Your task to perform on an android device: turn on the 12-hour format for clock Image 0: 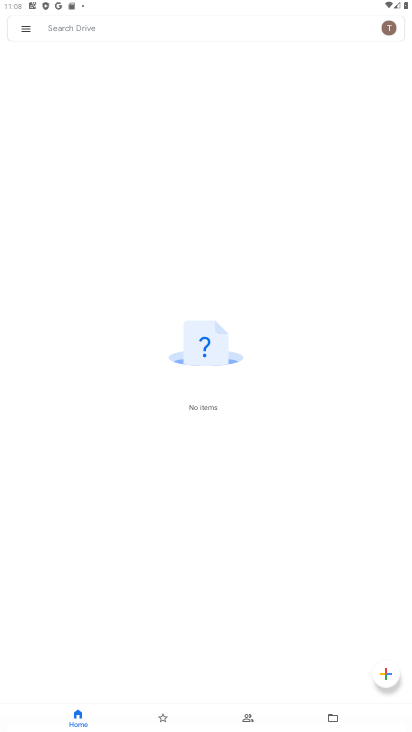
Step 0: press home button
Your task to perform on an android device: turn on the 12-hour format for clock Image 1: 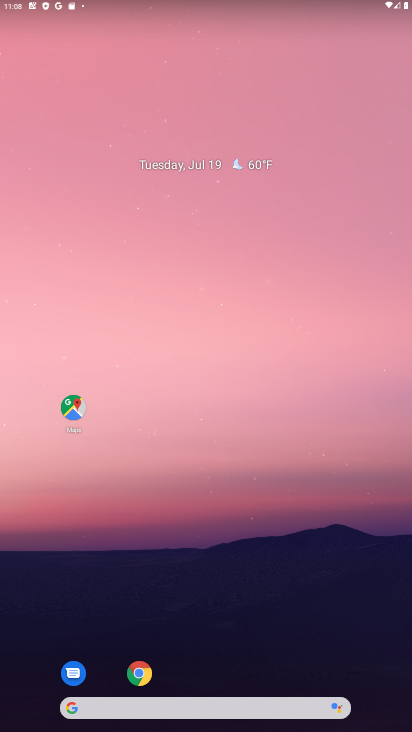
Step 1: drag from (383, 680) to (332, 167)
Your task to perform on an android device: turn on the 12-hour format for clock Image 2: 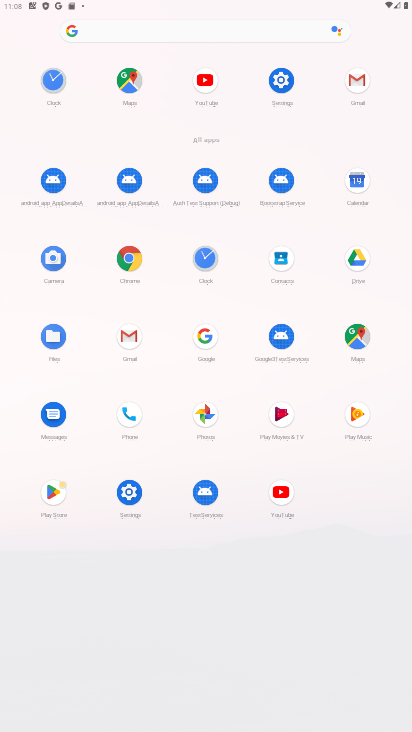
Step 2: click (206, 258)
Your task to perform on an android device: turn on the 12-hour format for clock Image 3: 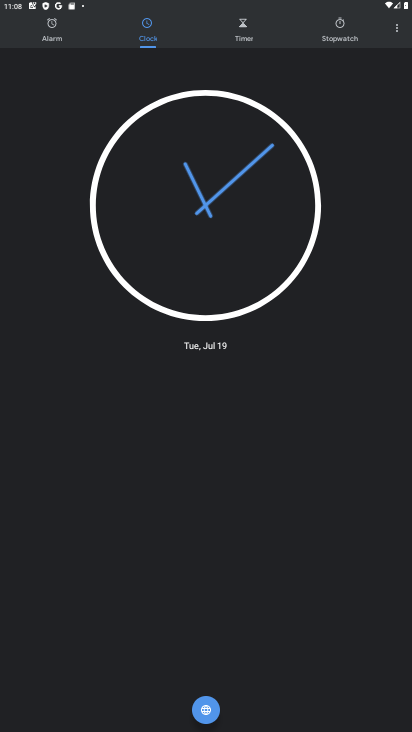
Step 3: click (395, 33)
Your task to perform on an android device: turn on the 12-hour format for clock Image 4: 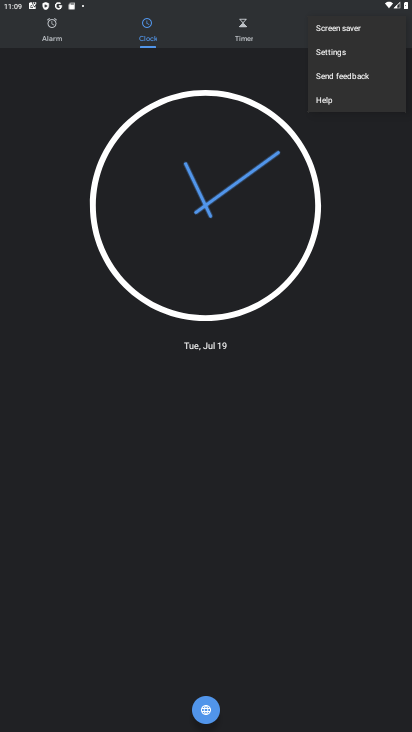
Step 4: click (325, 55)
Your task to perform on an android device: turn on the 12-hour format for clock Image 5: 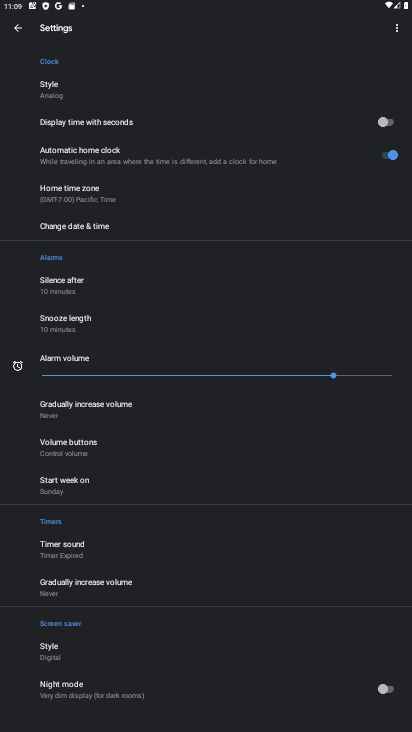
Step 5: click (89, 229)
Your task to perform on an android device: turn on the 12-hour format for clock Image 6: 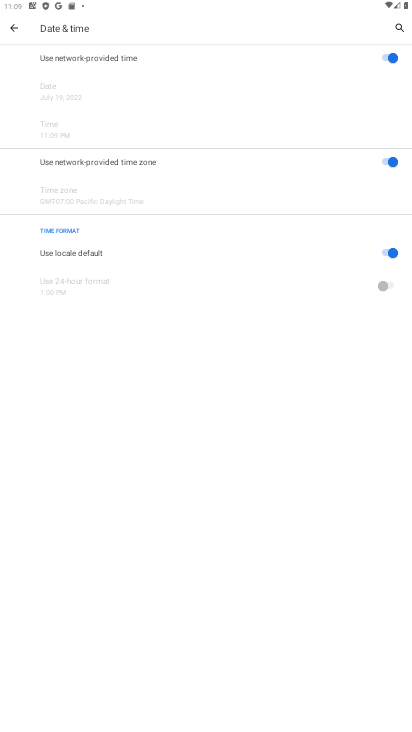
Step 6: task complete